Your task to perform on an android device: change the clock style Image 0: 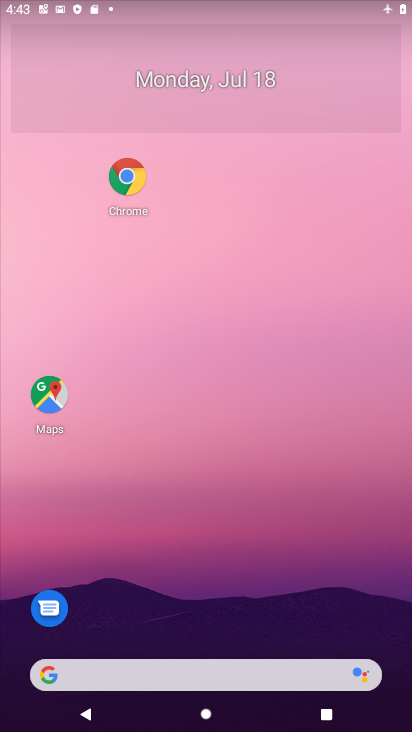
Step 0: drag from (176, 670) to (222, 165)
Your task to perform on an android device: change the clock style Image 1: 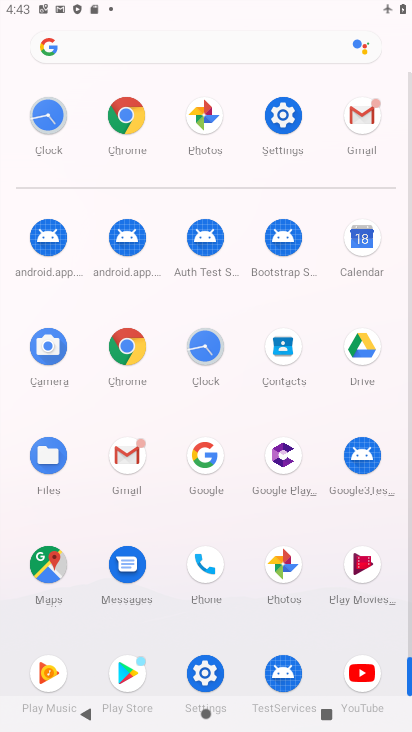
Step 1: click (202, 353)
Your task to perform on an android device: change the clock style Image 2: 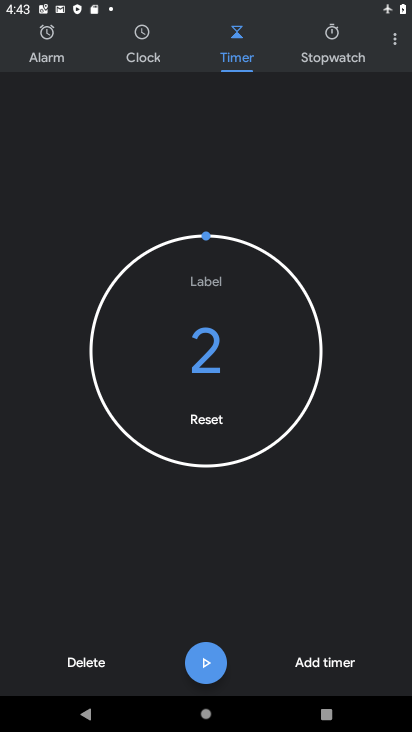
Step 2: click (392, 43)
Your task to perform on an android device: change the clock style Image 3: 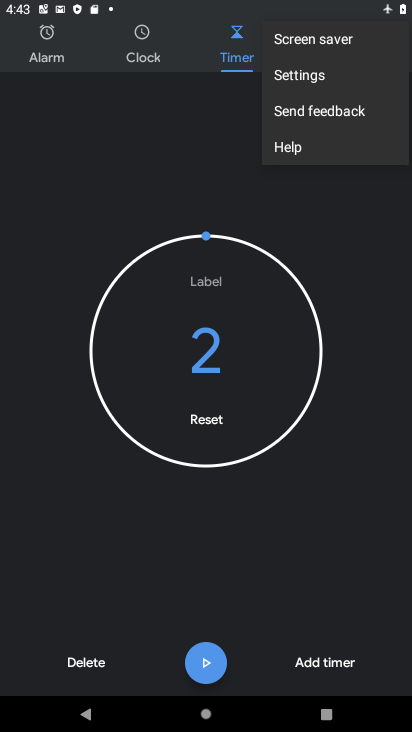
Step 3: click (309, 78)
Your task to perform on an android device: change the clock style Image 4: 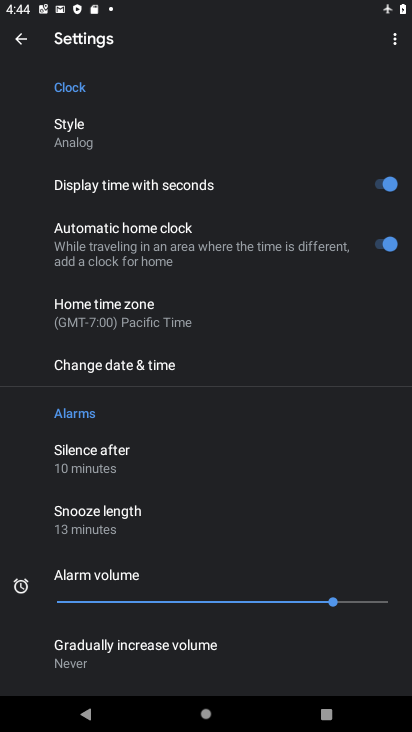
Step 4: click (72, 141)
Your task to perform on an android device: change the clock style Image 5: 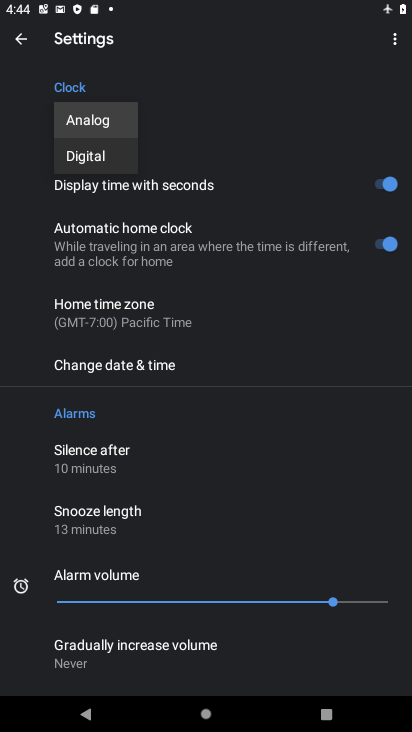
Step 5: click (116, 157)
Your task to perform on an android device: change the clock style Image 6: 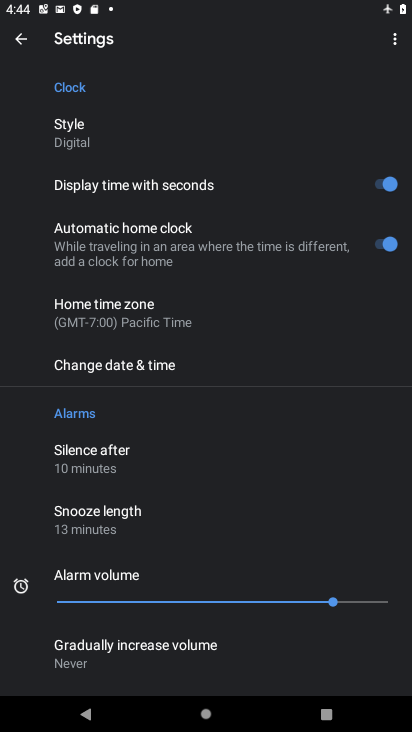
Step 6: task complete